Your task to perform on an android device: Open calendar and show me the first week of next month Image 0: 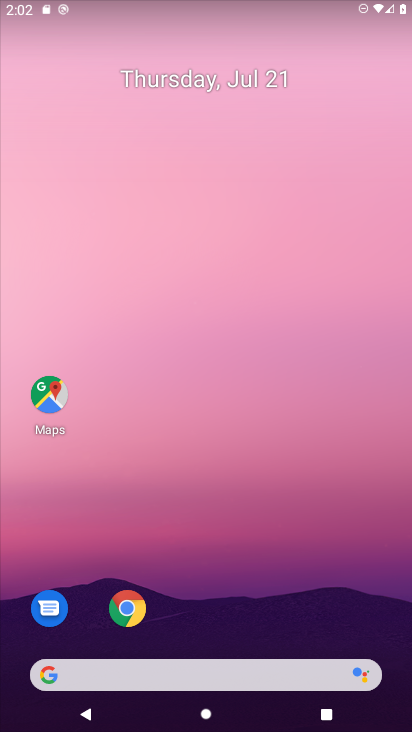
Step 0: drag from (232, 604) to (228, 258)
Your task to perform on an android device: Open calendar and show me the first week of next month Image 1: 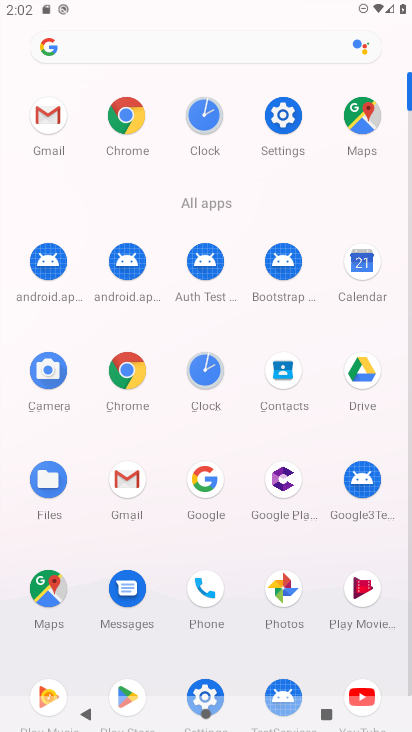
Step 1: click (355, 278)
Your task to perform on an android device: Open calendar and show me the first week of next month Image 2: 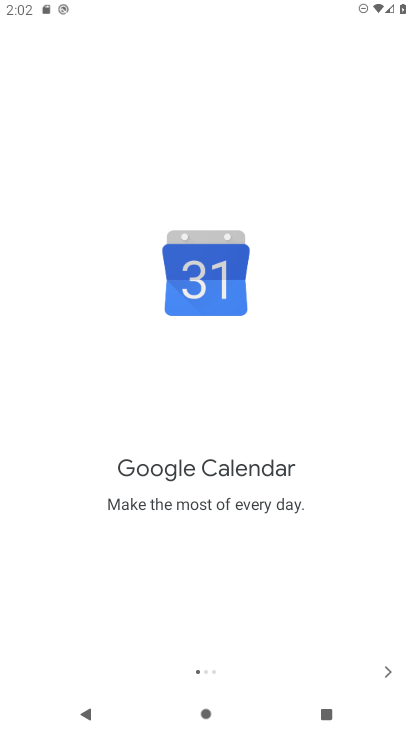
Step 2: click (388, 665)
Your task to perform on an android device: Open calendar and show me the first week of next month Image 3: 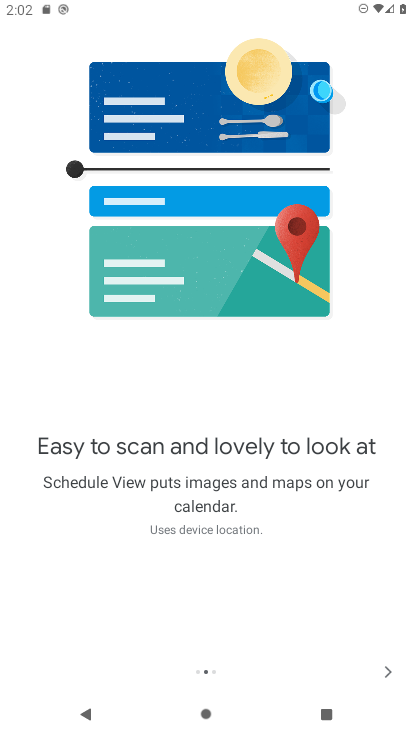
Step 3: click (389, 665)
Your task to perform on an android device: Open calendar and show me the first week of next month Image 4: 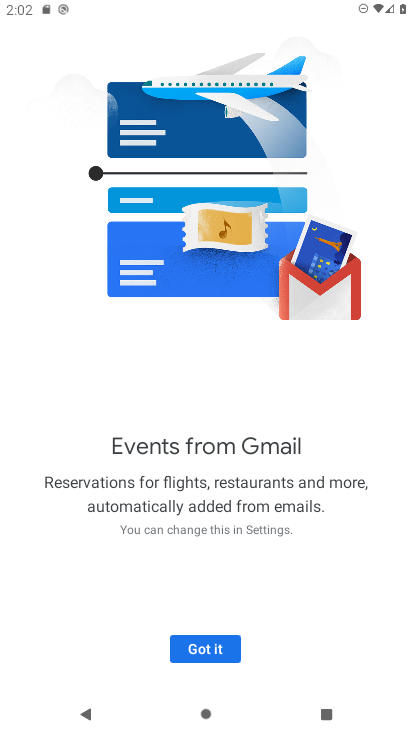
Step 4: click (213, 641)
Your task to perform on an android device: Open calendar and show me the first week of next month Image 5: 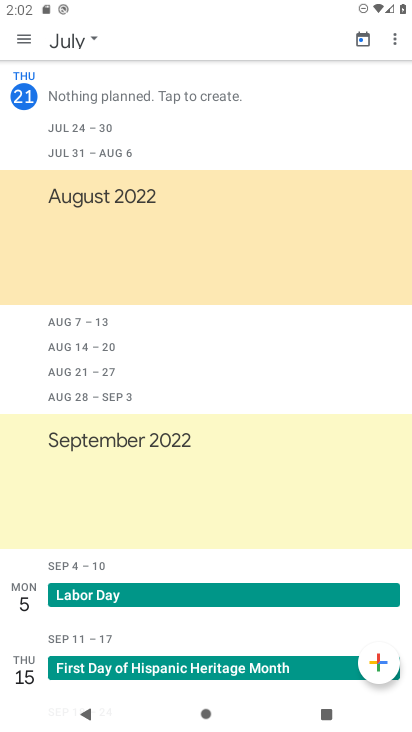
Step 5: click (99, 49)
Your task to perform on an android device: Open calendar and show me the first week of next month Image 6: 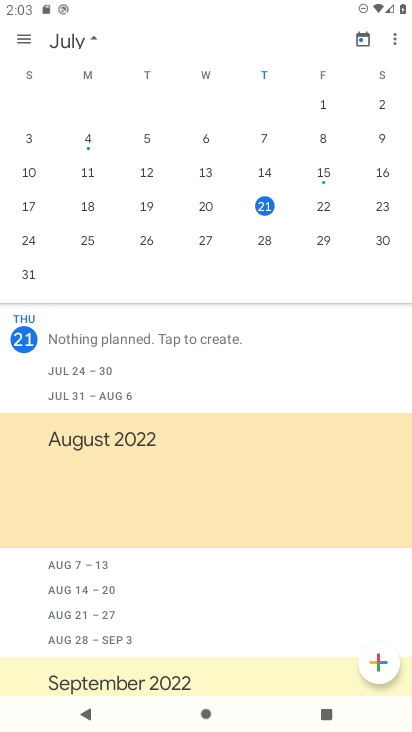
Step 6: drag from (338, 189) to (65, 161)
Your task to perform on an android device: Open calendar and show me the first week of next month Image 7: 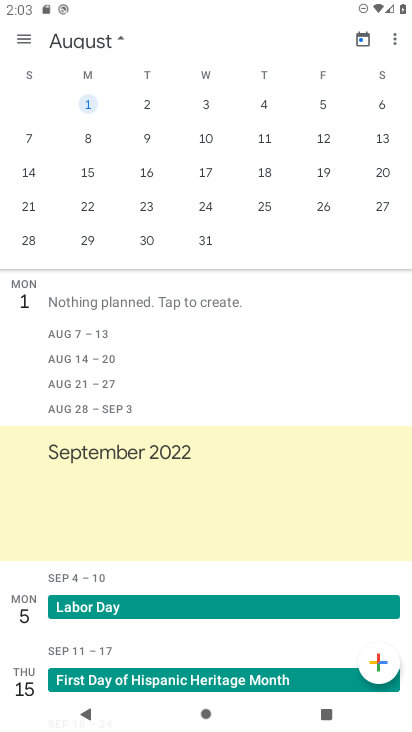
Step 7: click (86, 107)
Your task to perform on an android device: Open calendar and show me the first week of next month Image 8: 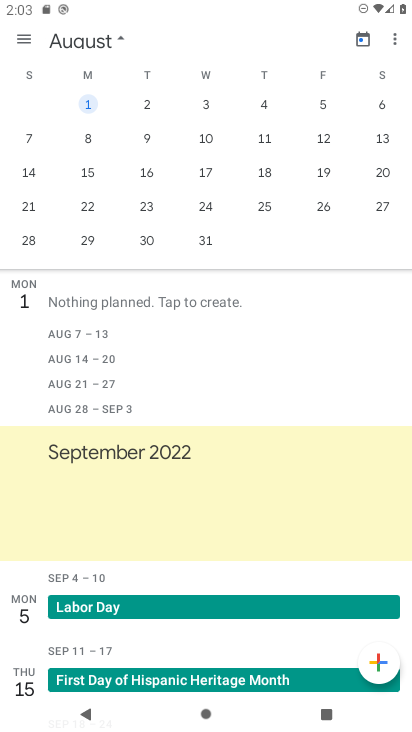
Step 8: task complete